Your task to perform on an android device: change alarm snooze length Image 0: 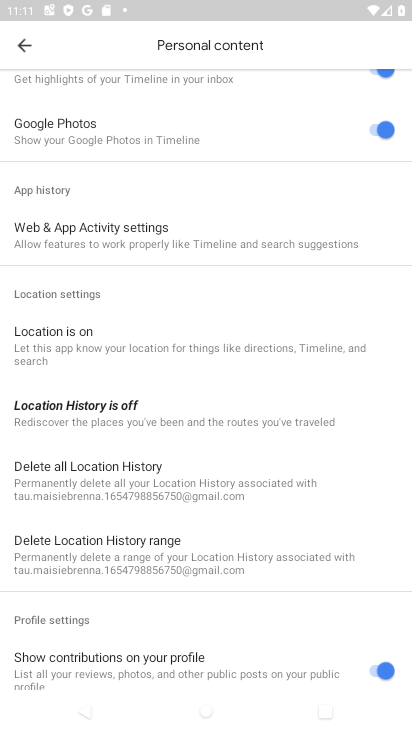
Step 0: press home button
Your task to perform on an android device: change alarm snooze length Image 1: 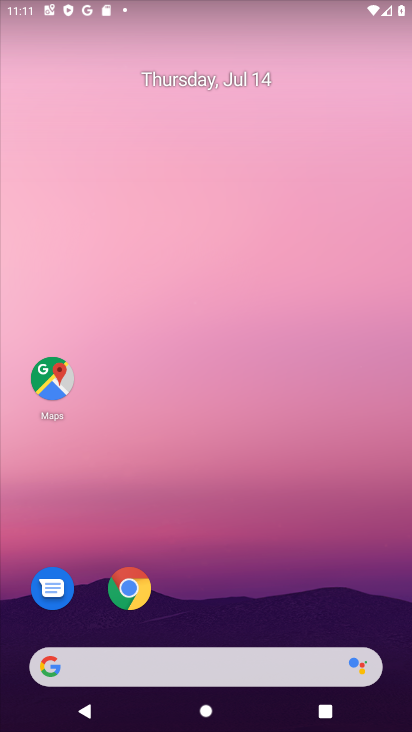
Step 1: drag from (223, 656) to (352, 111)
Your task to perform on an android device: change alarm snooze length Image 2: 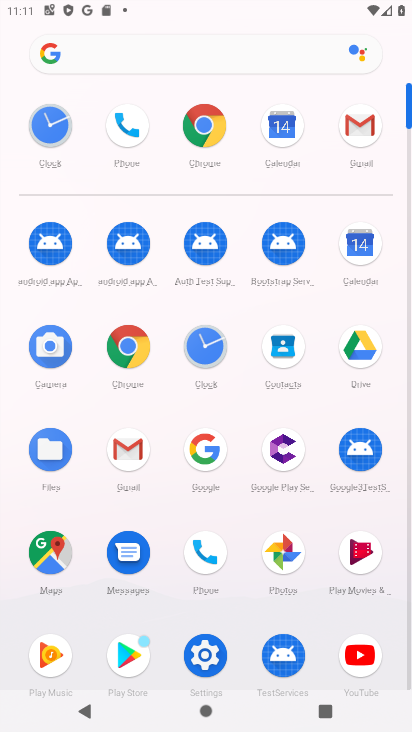
Step 2: click (203, 351)
Your task to perform on an android device: change alarm snooze length Image 3: 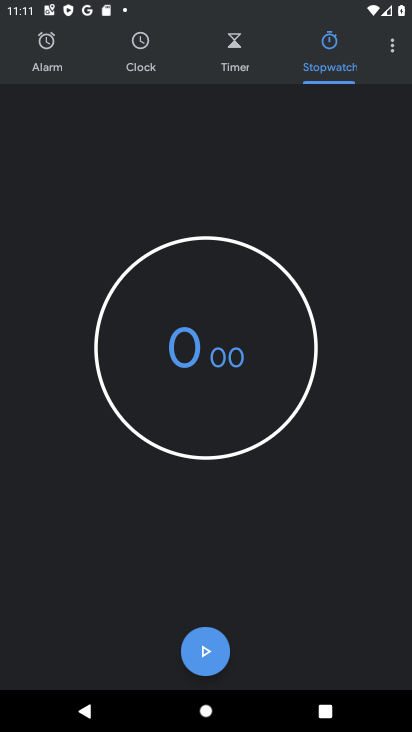
Step 3: click (396, 43)
Your task to perform on an android device: change alarm snooze length Image 4: 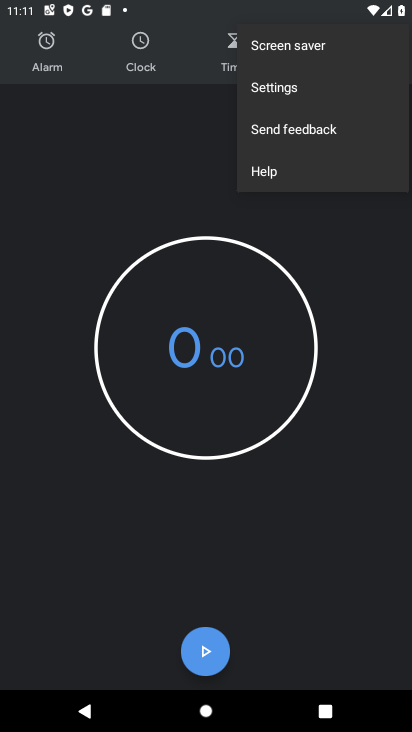
Step 4: click (285, 92)
Your task to perform on an android device: change alarm snooze length Image 5: 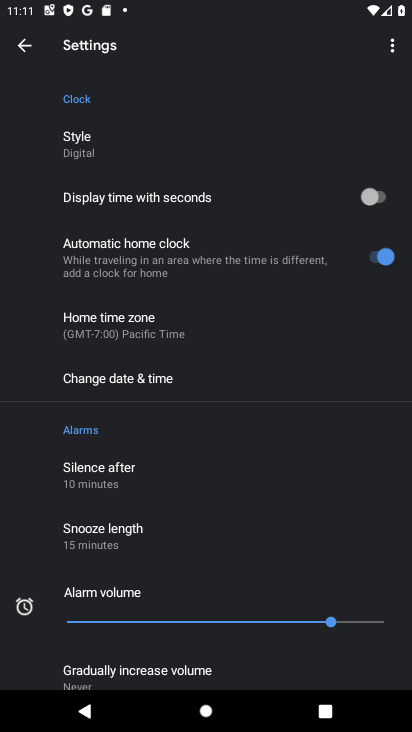
Step 5: click (108, 532)
Your task to perform on an android device: change alarm snooze length Image 6: 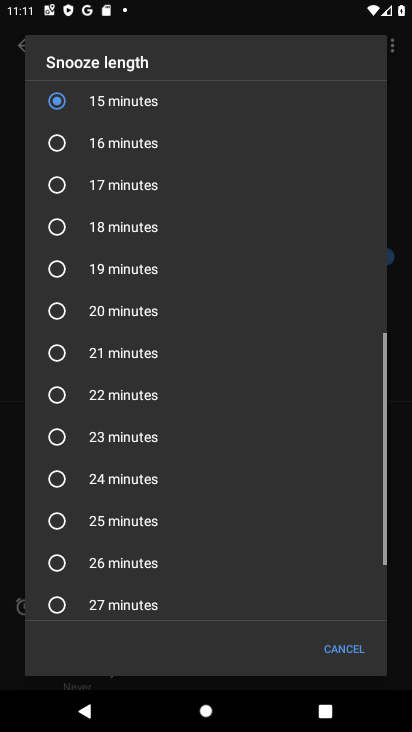
Step 6: drag from (131, 173) to (53, 594)
Your task to perform on an android device: change alarm snooze length Image 7: 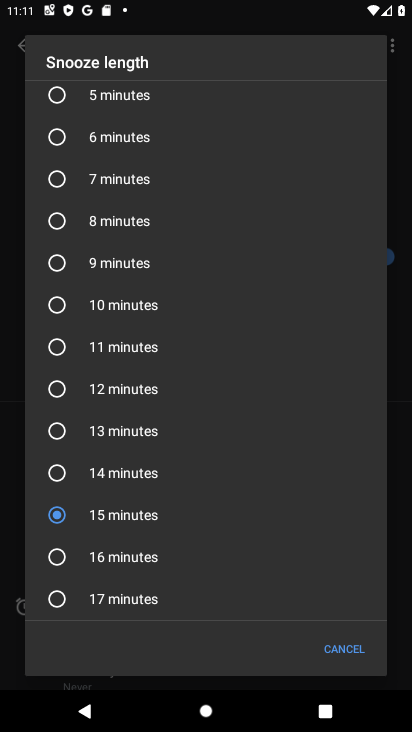
Step 7: click (58, 308)
Your task to perform on an android device: change alarm snooze length Image 8: 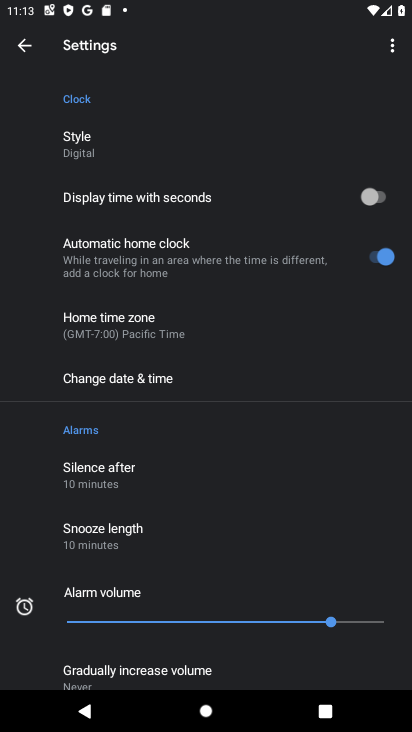
Step 8: task complete